Your task to perform on an android device: open a bookmark in the chrome app Image 0: 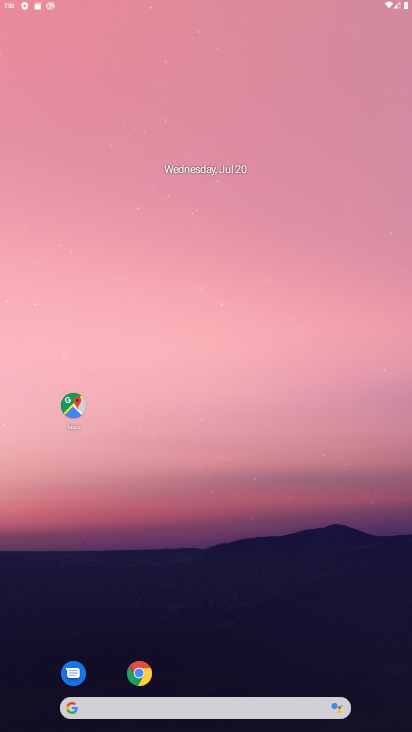
Step 0: drag from (213, 582) to (317, 77)
Your task to perform on an android device: open a bookmark in the chrome app Image 1: 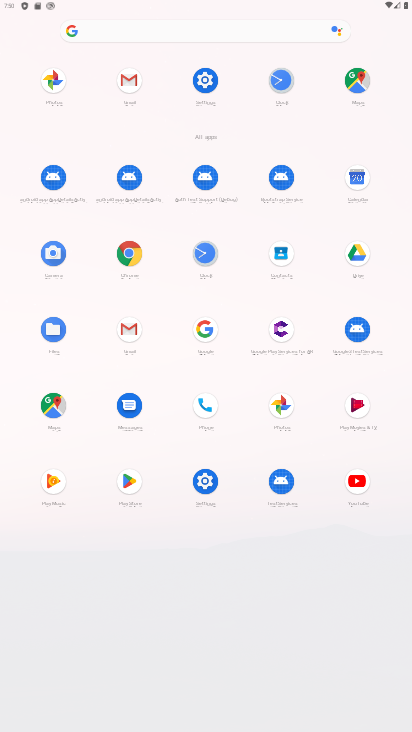
Step 1: click (118, 248)
Your task to perform on an android device: open a bookmark in the chrome app Image 2: 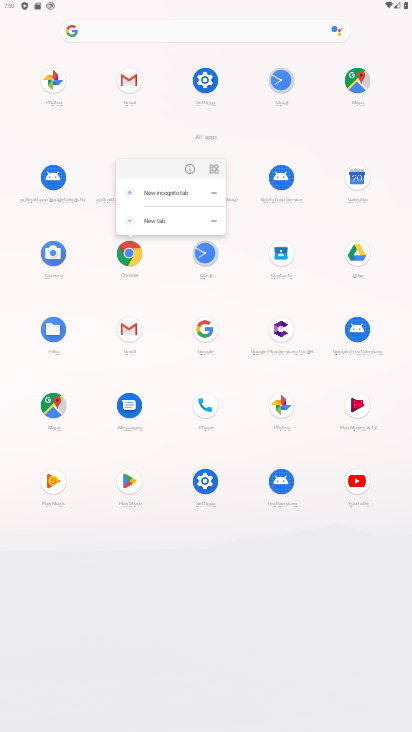
Step 2: click (192, 165)
Your task to perform on an android device: open a bookmark in the chrome app Image 3: 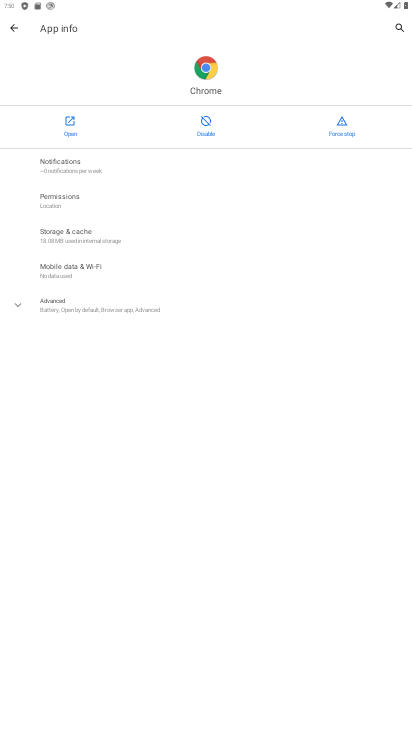
Step 3: click (78, 127)
Your task to perform on an android device: open a bookmark in the chrome app Image 4: 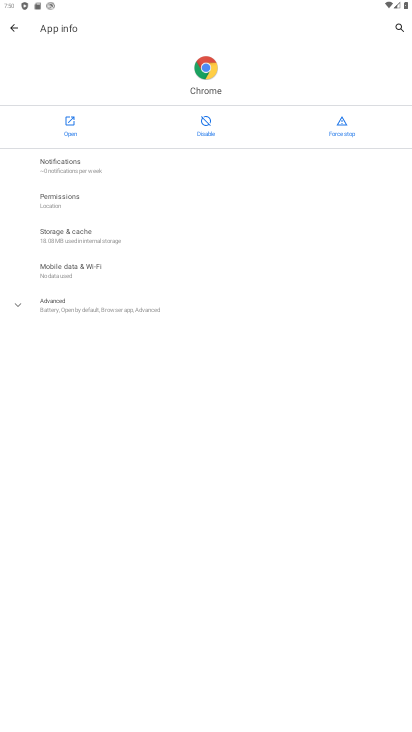
Step 4: click (78, 127)
Your task to perform on an android device: open a bookmark in the chrome app Image 5: 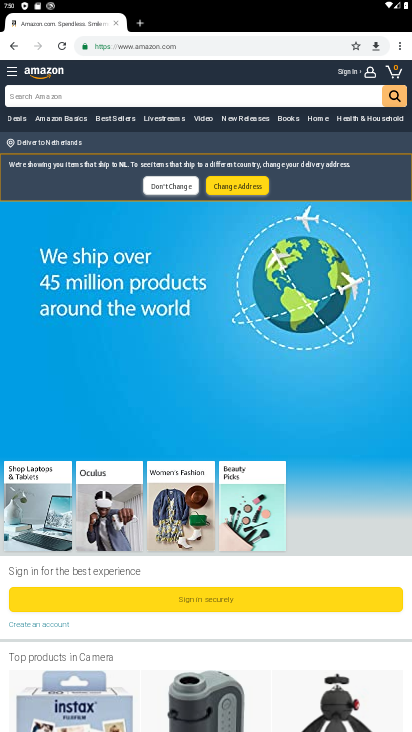
Step 5: drag from (188, 614) to (271, 307)
Your task to perform on an android device: open a bookmark in the chrome app Image 6: 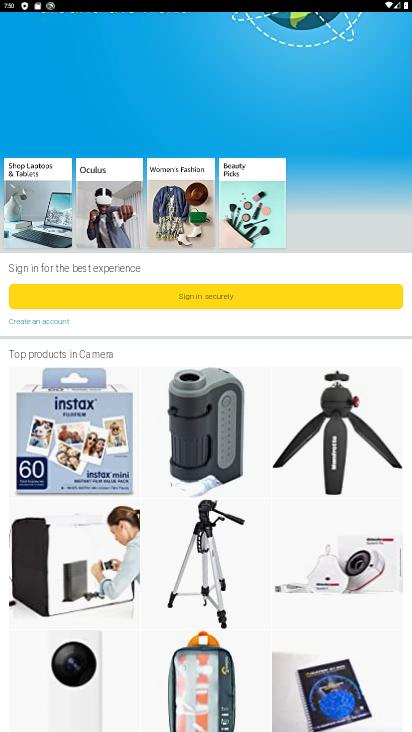
Step 6: drag from (312, 148) to (353, 598)
Your task to perform on an android device: open a bookmark in the chrome app Image 7: 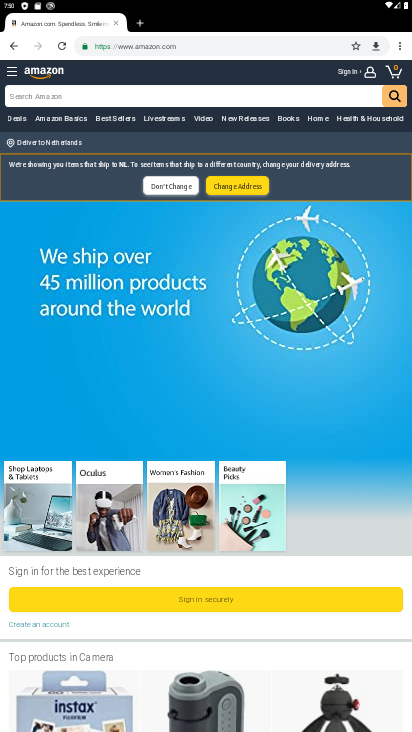
Step 7: drag from (342, 197) to (278, 473)
Your task to perform on an android device: open a bookmark in the chrome app Image 8: 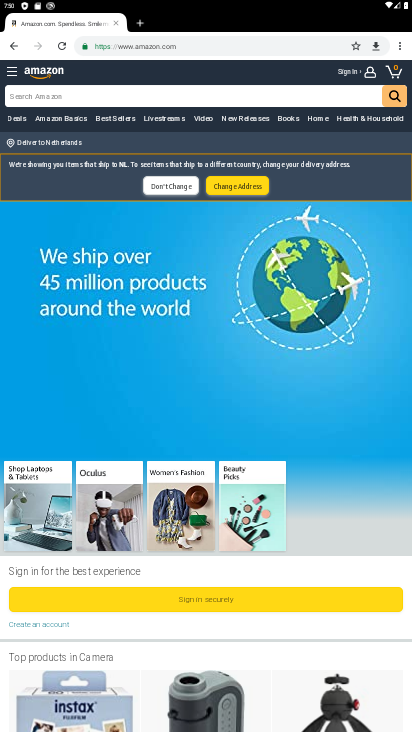
Step 8: drag from (400, 38) to (321, 86)
Your task to perform on an android device: open a bookmark in the chrome app Image 9: 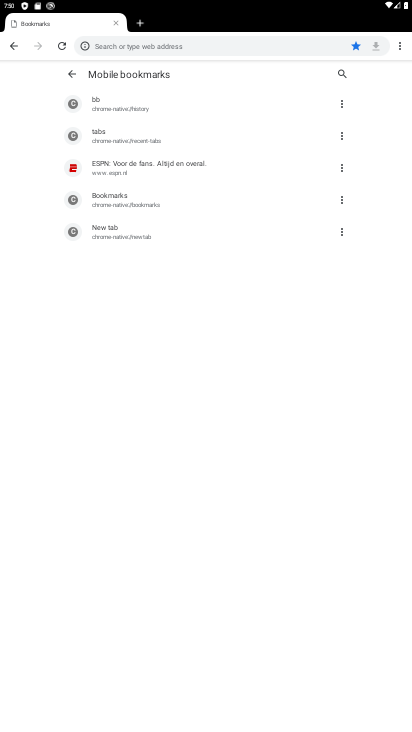
Step 9: drag from (218, 443) to (218, 168)
Your task to perform on an android device: open a bookmark in the chrome app Image 10: 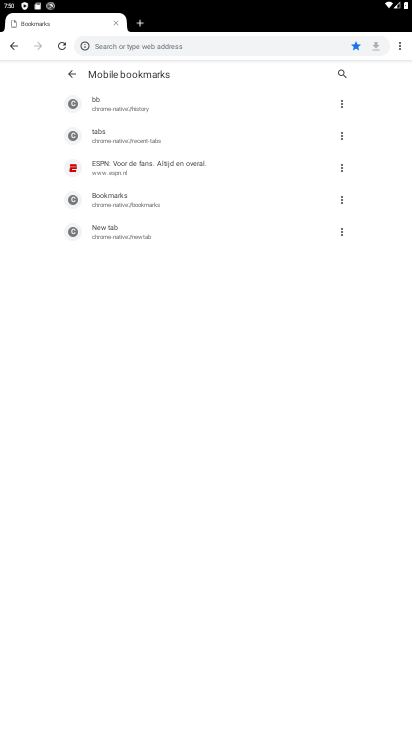
Step 10: drag from (106, 521) to (141, 206)
Your task to perform on an android device: open a bookmark in the chrome app Image 11: 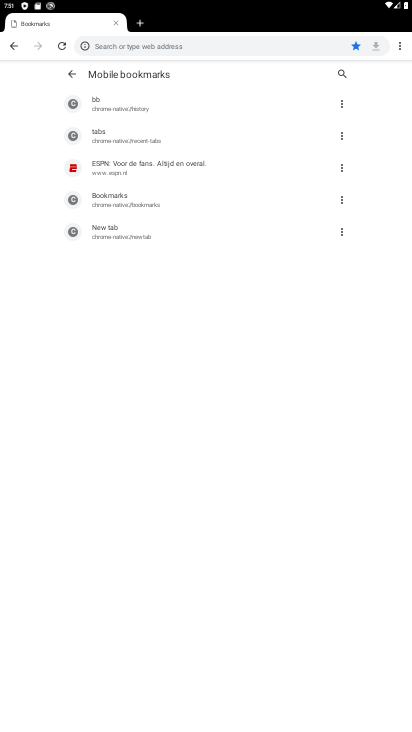
Step 11: drag from (222, 535) to (235, 179)
Your task to perform on an android device: open a bookmark in the chrome app Image 12: 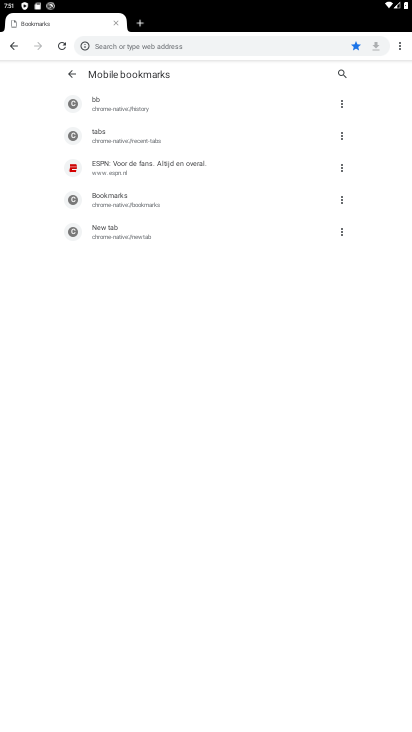
Step 12: drag from (202, 499) to (238, 222)
Your task to perform on an android device: open a bookmark in the chrome app Image 13: 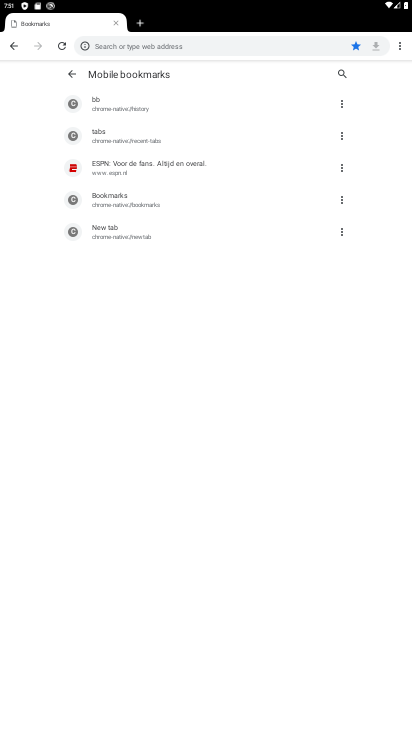
Step 13: drag from (402, 43) to (147, 373)
Your task to perform on an android device: open a bookmark in the chrome app Image 14: 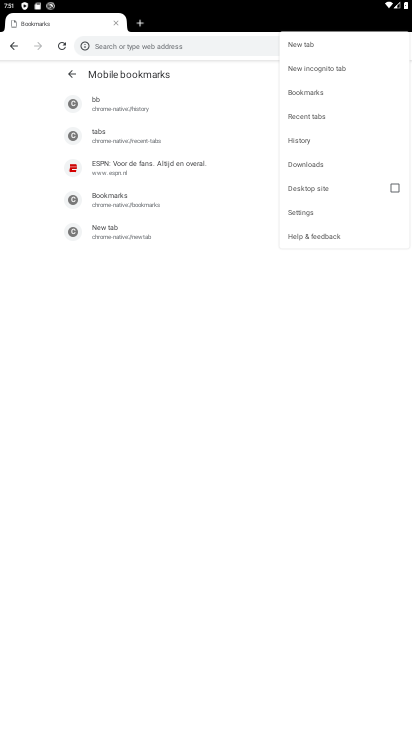
Step 14: click (142, 369)
Your task to perform on an android device: open a bookmark in the chrome app Image 15: 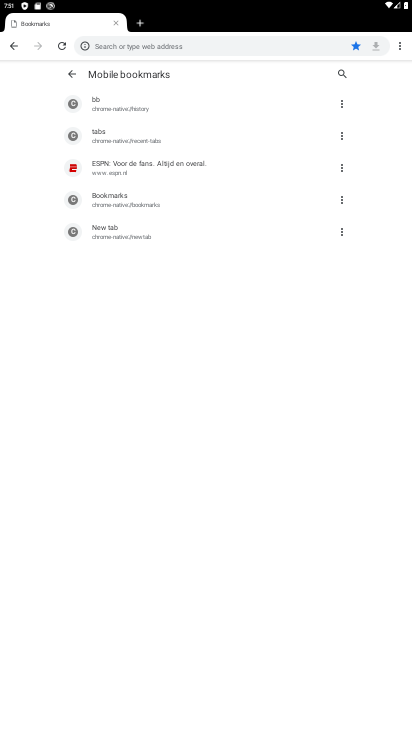
Step 15: task complete